Your task to perform on an android device: turn on location history Image 0: 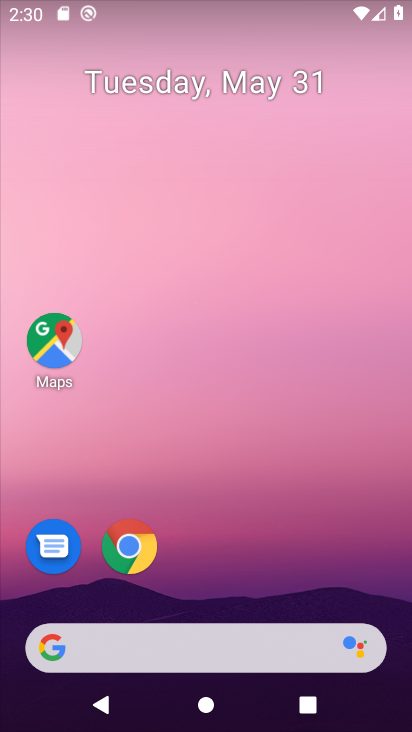
Step 0: drag from (281, 486) to (174, 21)
Your task to perform on an android device: turn on location history Image 1: 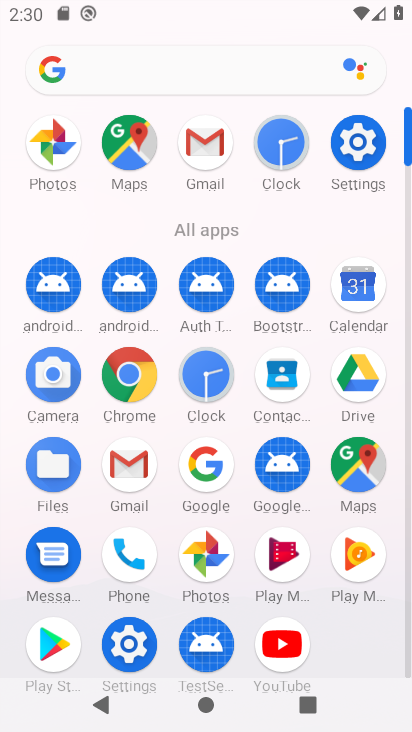
Step 1: click (359, 149)
Your task to perform on an android device: turn on location history Image 2: 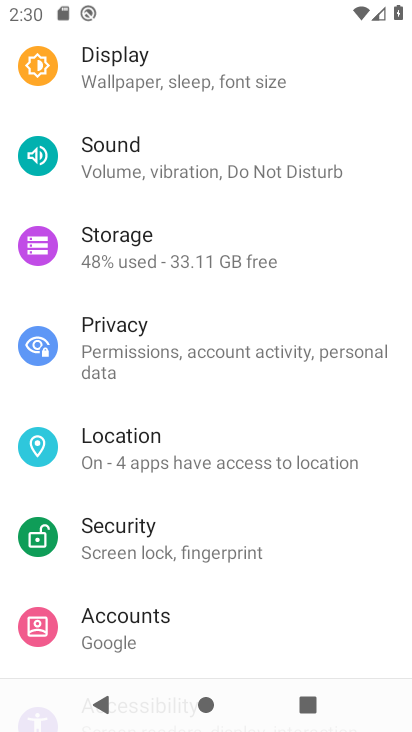
Step 2: click (196, 463)
Your task to perform on an android device: turn on location history Image 3: 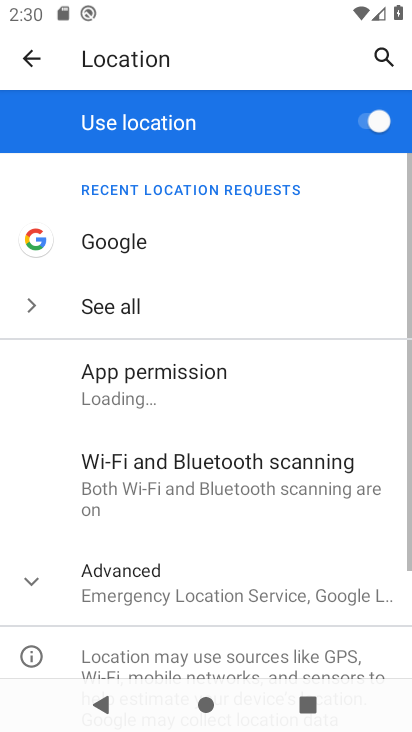
Step 3: click (258, 601)
Your task to perform on an android device: turn on location history Image 4: 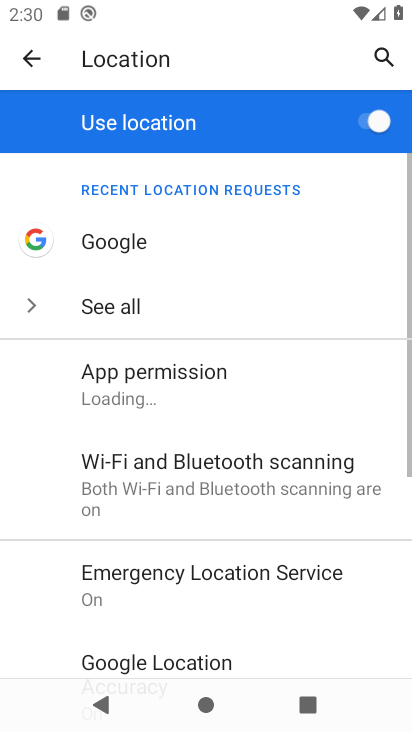
Step 4: drag from (238, 612) to (229, 176)
Your task to perform on an android device: turn on location history Image 5: 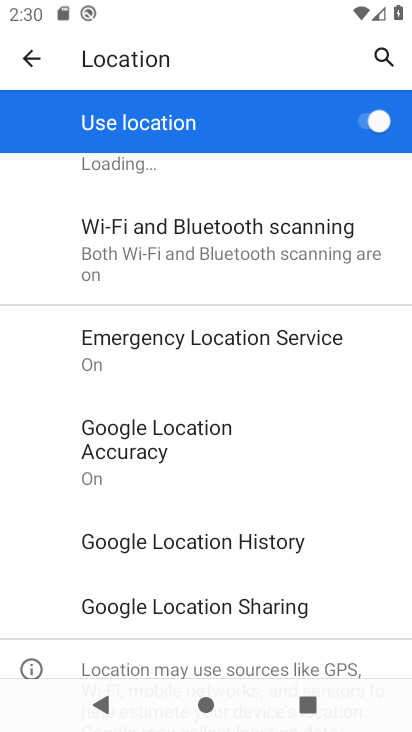
Step 5: click (256, 517)
Your task to perform on an android device: turn on location history Image 6: 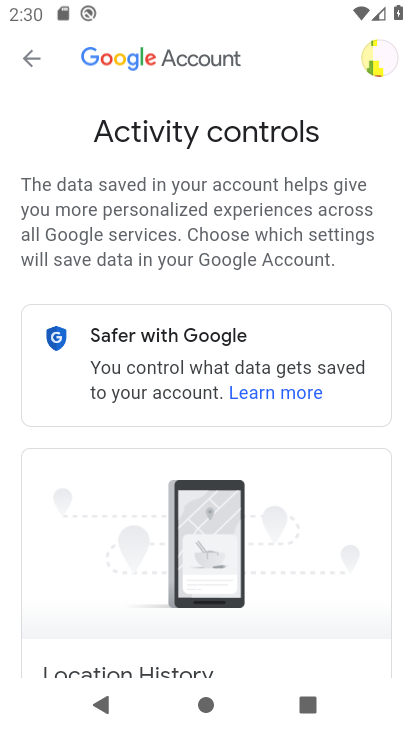
Step 6: drag from (281, 459) to (169, 53)
Your task to perform on an android device: turn on location history Image 7: 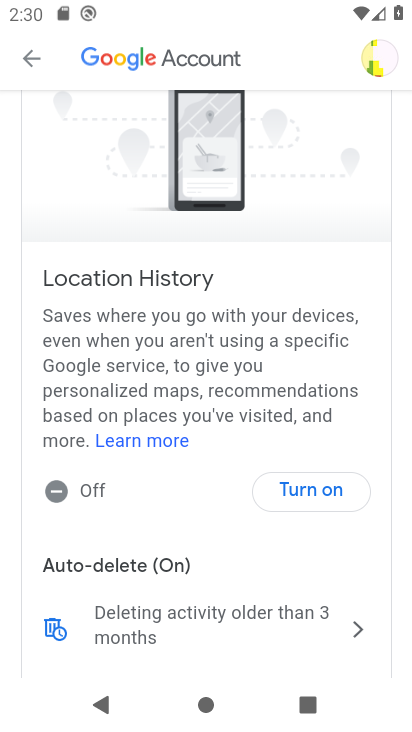
Step 7: click (315, 486)
Your task to perform on an android device: turn on location history Image 8: 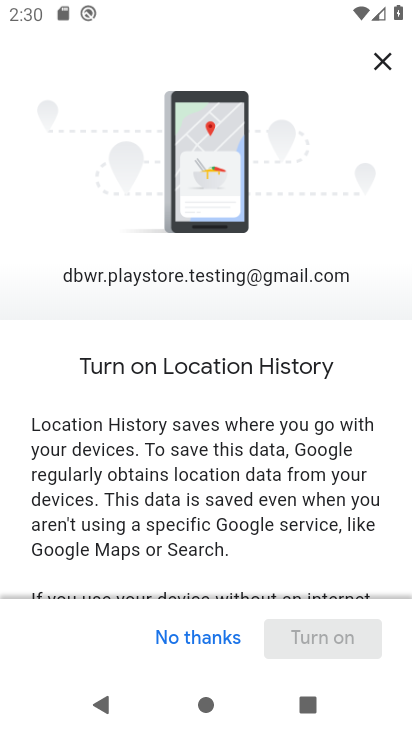
Step 8: drag from (194, 442) to (174, 166)
Your task to perform on an android device: turn on location history Image 9: 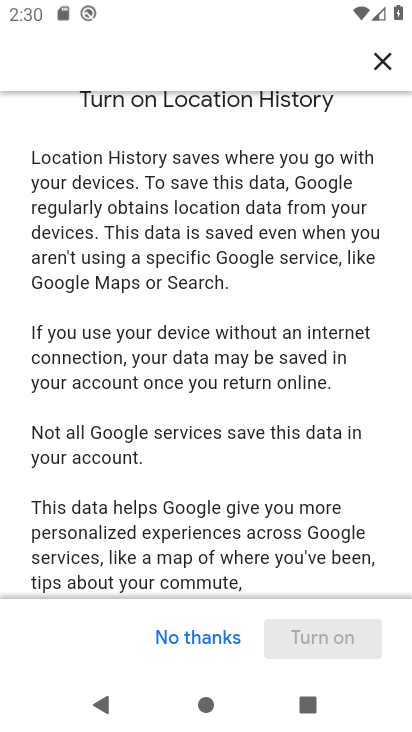
Step 9: drag from (203, 481) to (196, 67)
Your task to perform on an android device: turn on location history Image 10: 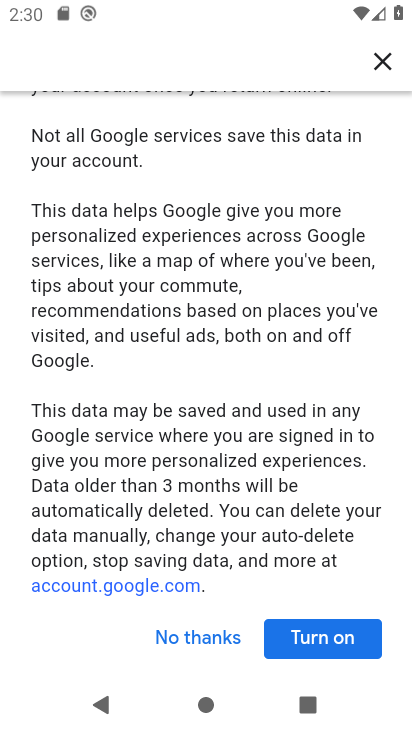
Step 10: click (334, 628)
Your task to perform on an android device: turn on location history Image 11: 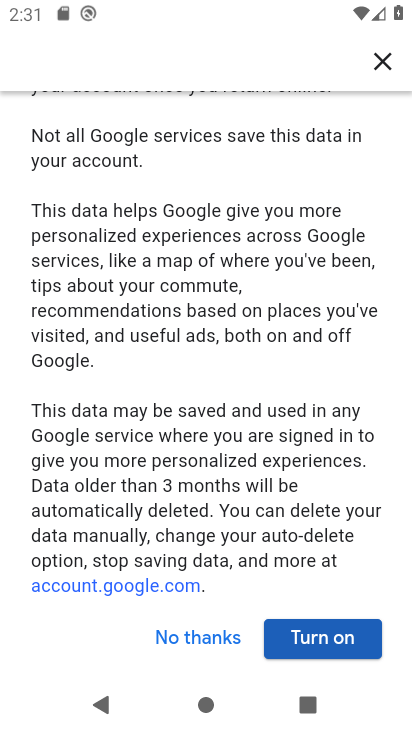
Step 11: click (337, 635)
Your task to perform on an android device: turn on location history Image 12: 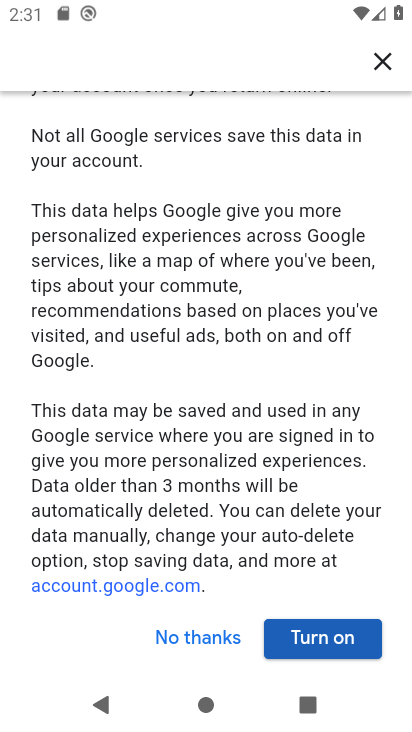
Step 12: click (349, 646)
Your task to perform on an android device: turn on location history Image 13: 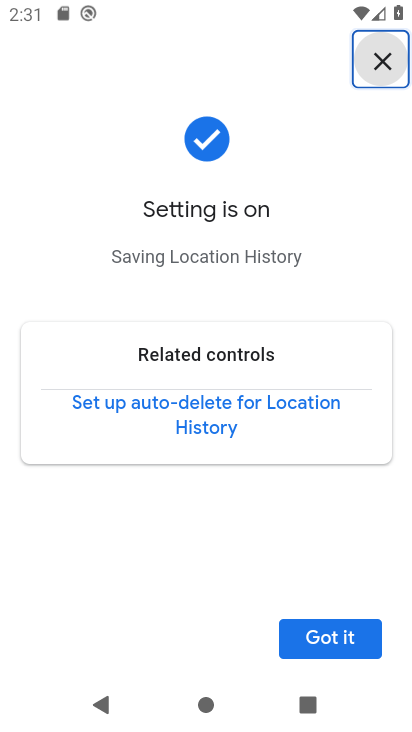
Step 13: click (346, 638)
Your task to perform on an android device: turn on location history Image 14: 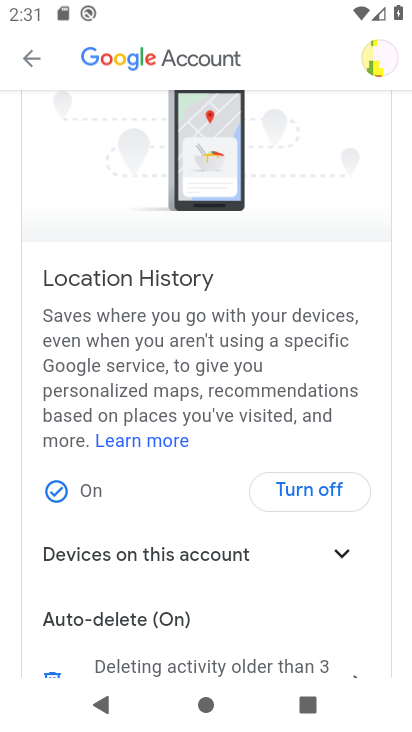
Step 14: task complete